Your task to perform on an android device: Open display settings Image 0: 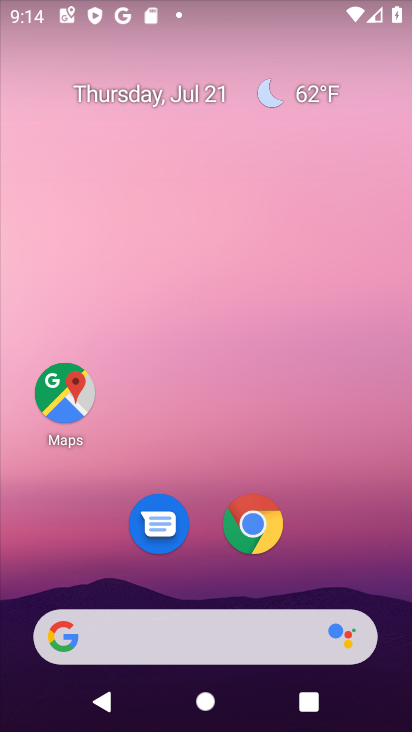
Step 0: press home button
Your task to perform on an android device: Open display settings Image 1: 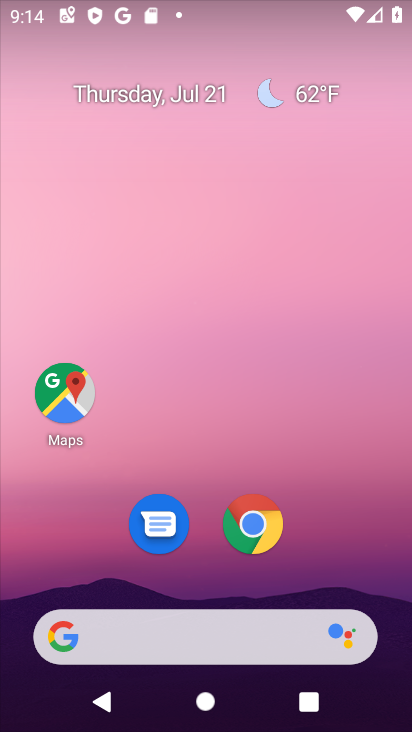
Step 1: drag from (171, 646) to (313, 107)
Your task to perform on an android device: Open display settings Image 2: 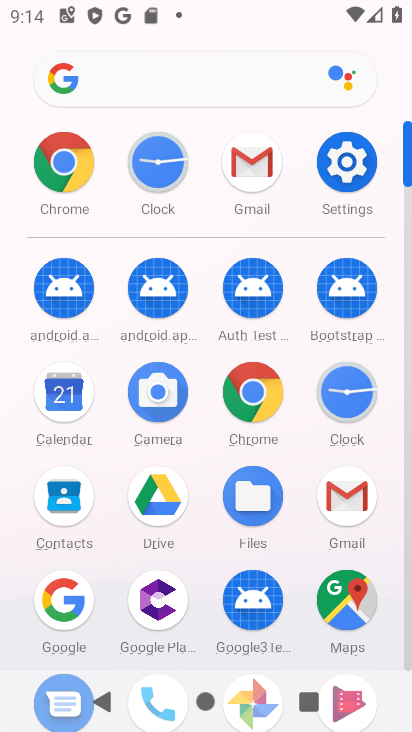
Step 2: click (351, 163)
Your task to perform on an android device: Open display settings Image 3: 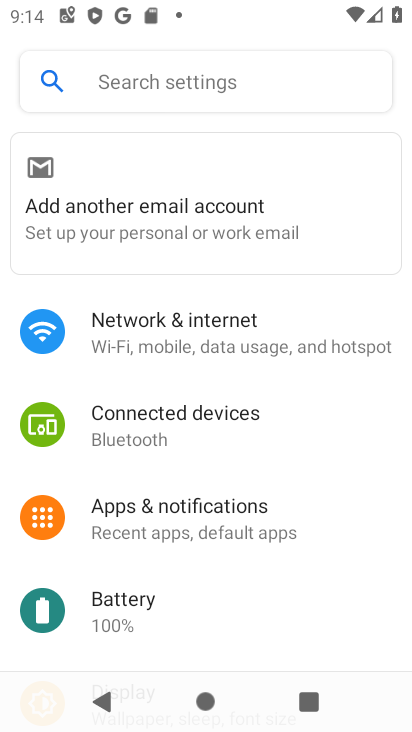
Step 3: drag from (205, 591) to (298, 160)
Your task to perform on an android device: Open display settings Image 4: 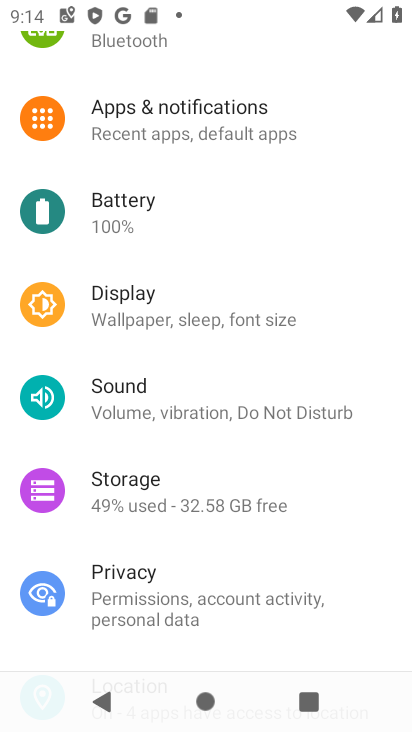
Step 4: click (158, 303)
Your task to perform on an android device: Open display settings Image 5: 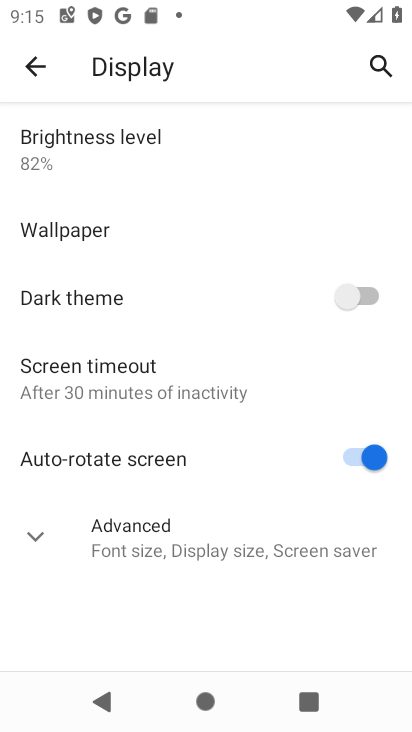
Step 5: task complete